Your task to perform on an android device: Open Wikipedia Image 0: 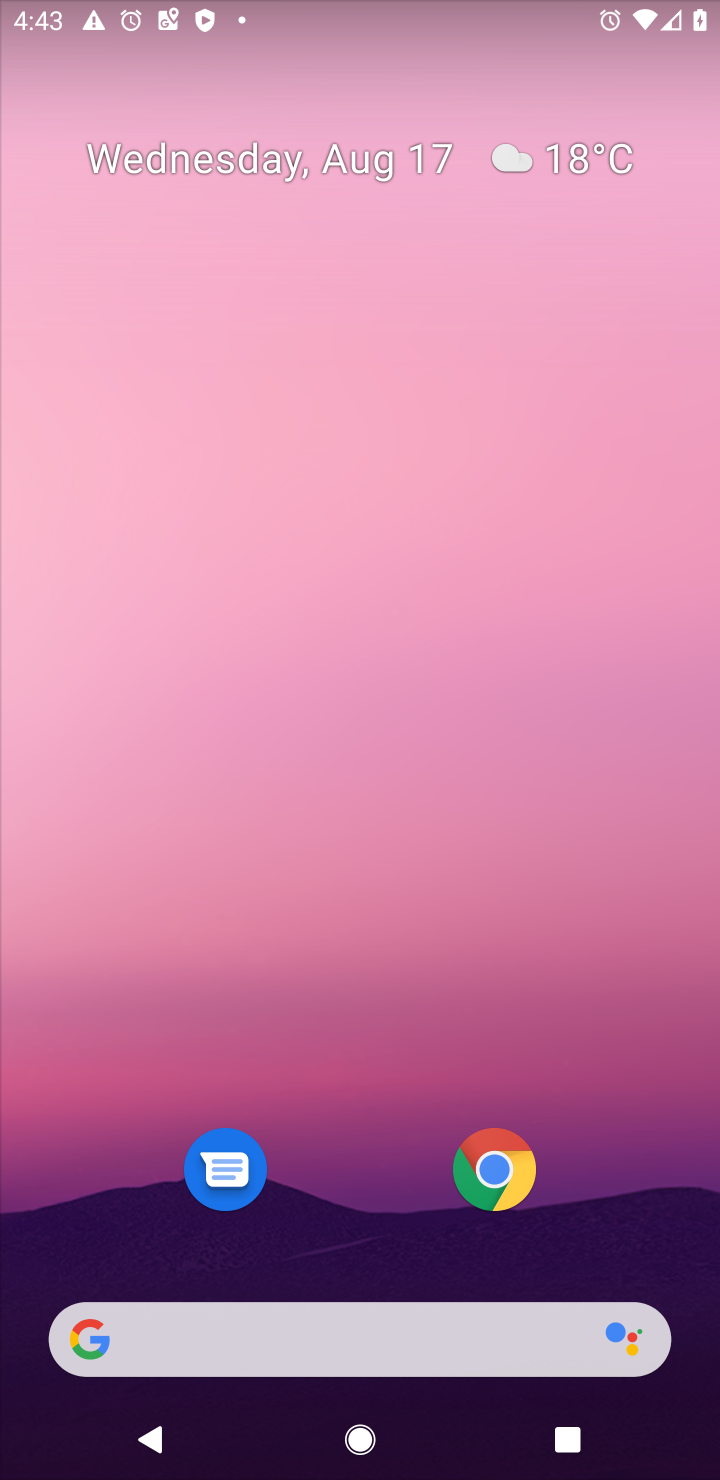
Step 0: drag from (451, 1209) to (474, 130)
Your task to perform on an android device: Open Wikipedia Image 1: 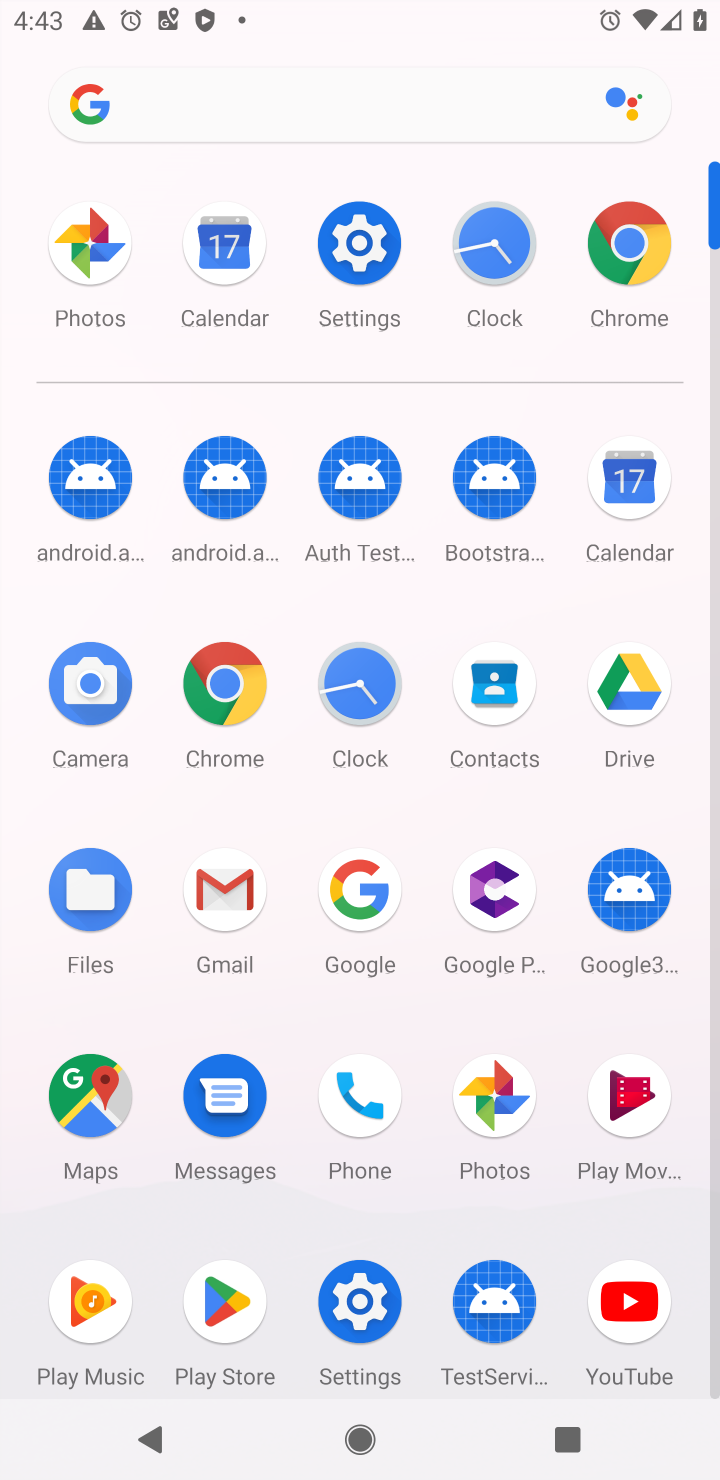
Step 1: click (223, 714)
Your task to perform on an android device: Open Wikipedia Image 2: 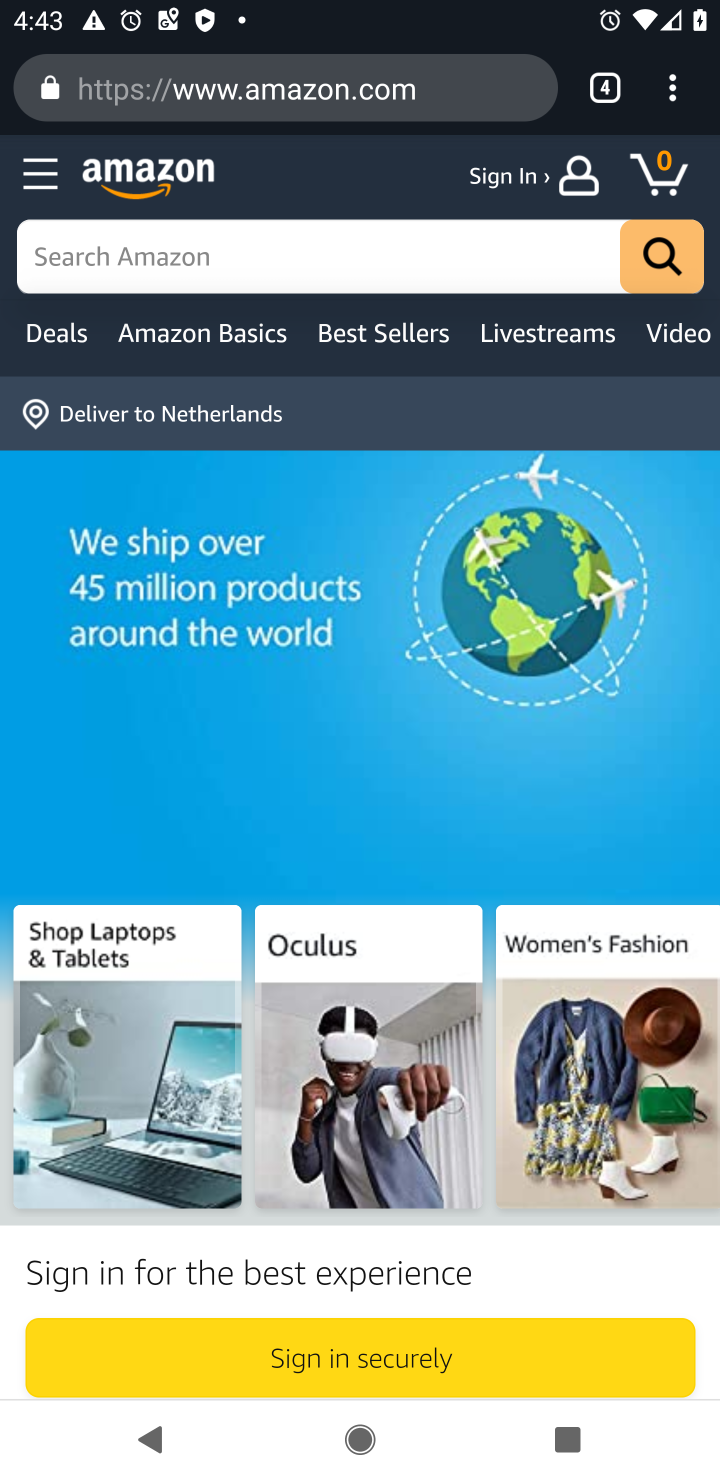
Step 2: click (245, 83)
Your task to perform on an android device: Open Wikipedia Image 3: 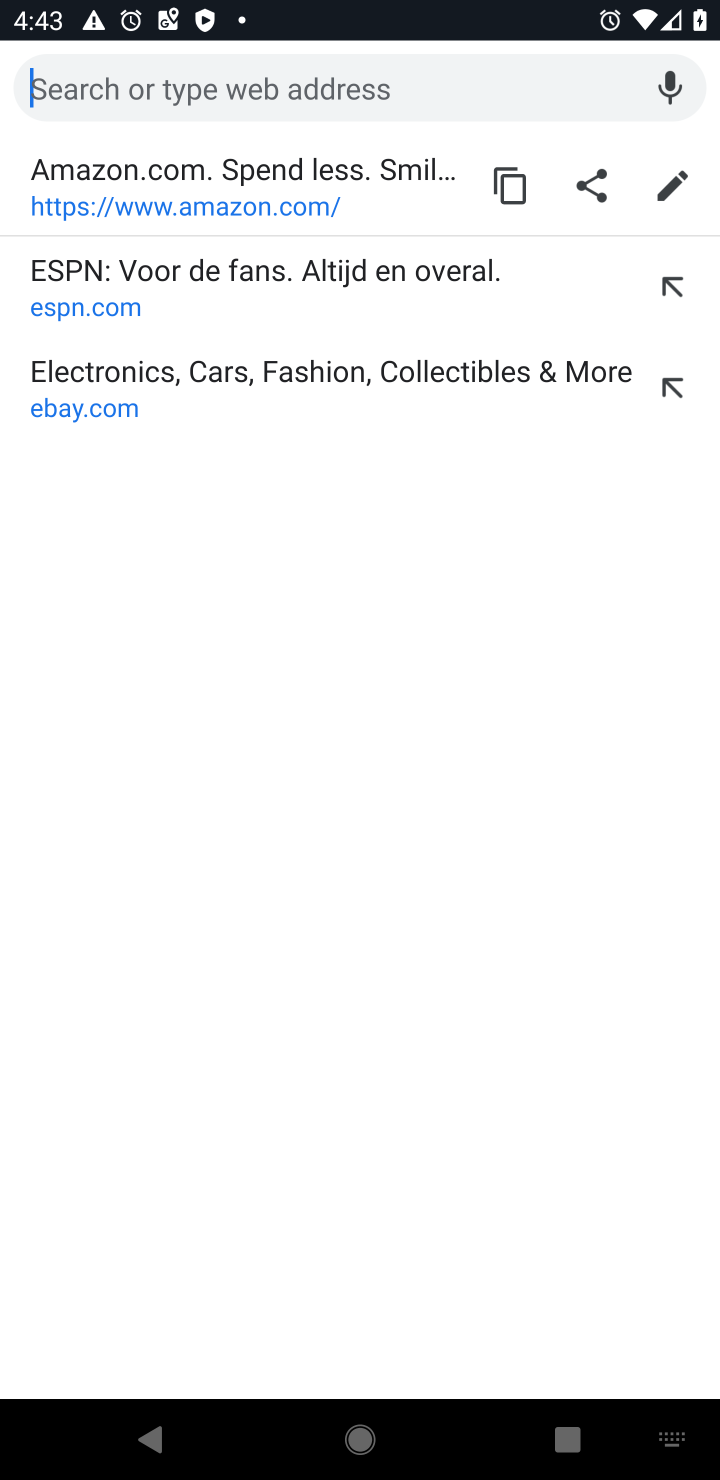
Step 3: type "Wikipedia"
Your task to perform on an android device: Open Wikipedia Image 4: 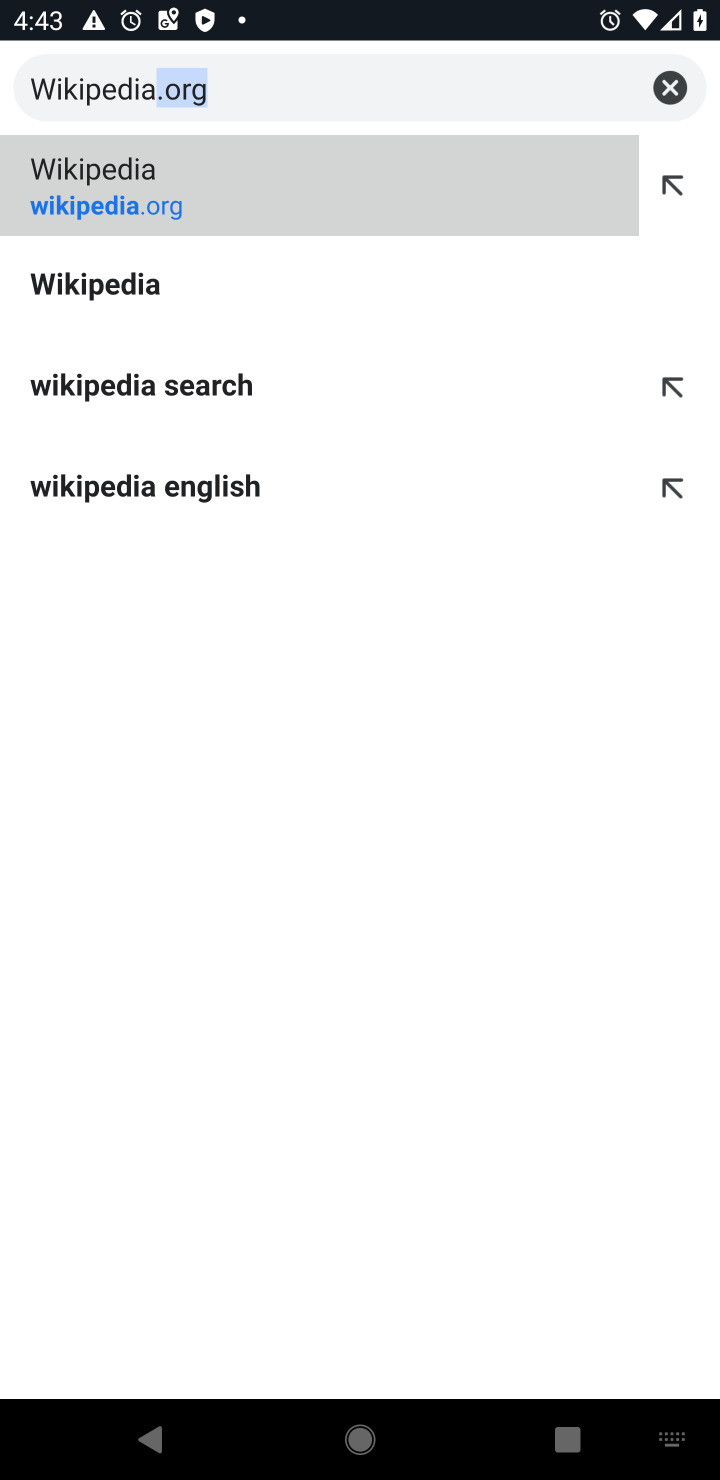
Step 4: click (133, 193)
Your task to perform on an android device: Open Wikipedia Image 5: 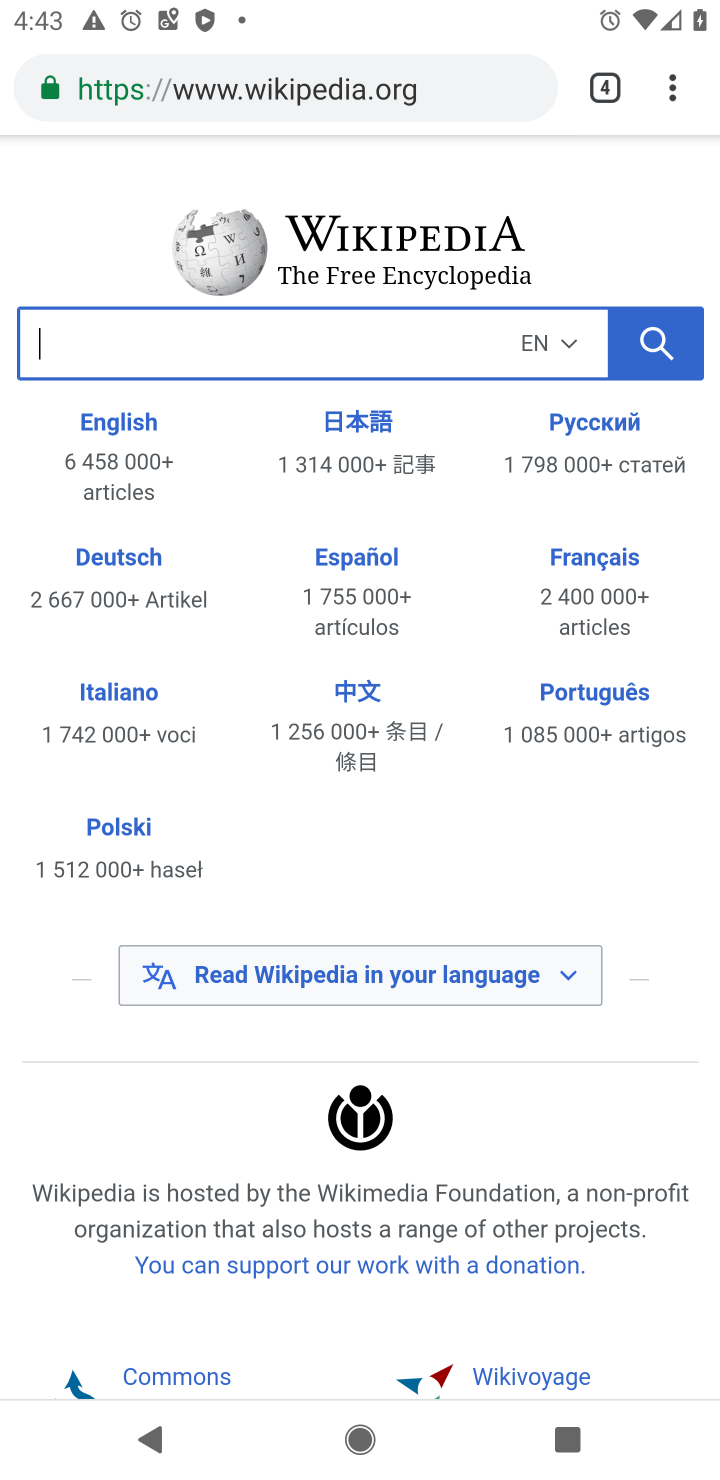
Step 5: task complete